Your task to perform on an android device: set the timer Image 0: 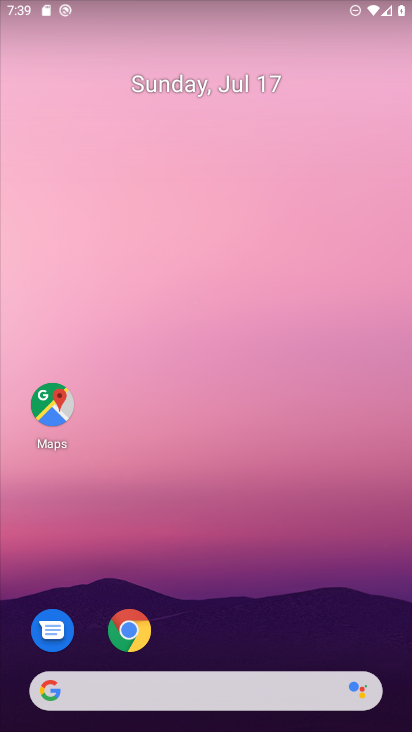
Step 0: drag from (348, 647) to (243, 32)
Your task to perform on an android device: set the timer Image 1: 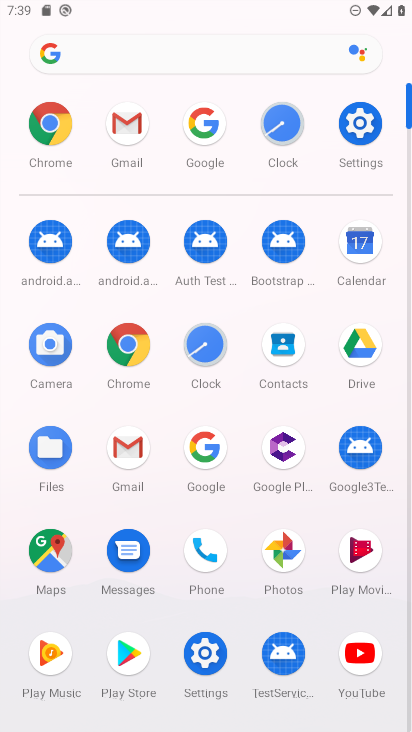
Step 1: click (287, 133)
Your task to perform on an android device: set the timer Image 2: 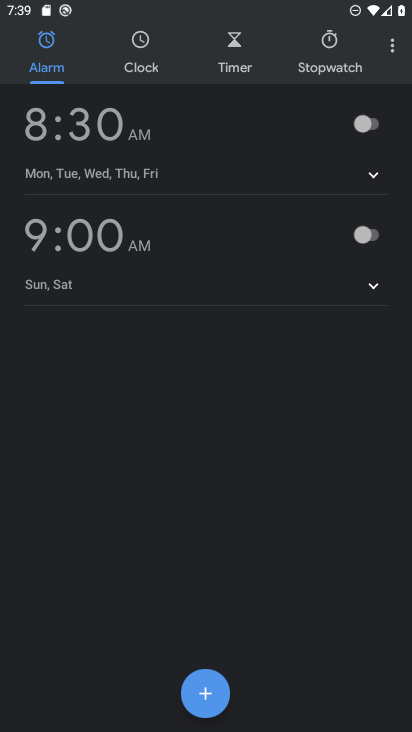
Step 2: click (225, 44)
Your task to perform on an android device: set the timer Image 3: 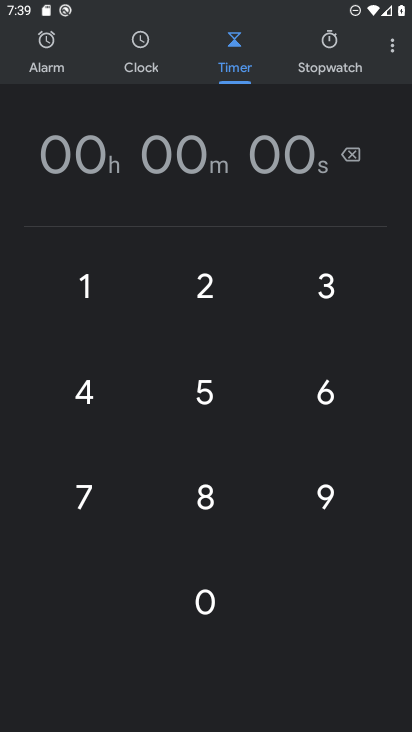
Step 3: click (325, 290)
Your task to perform on an android device: set the timer Image 4: 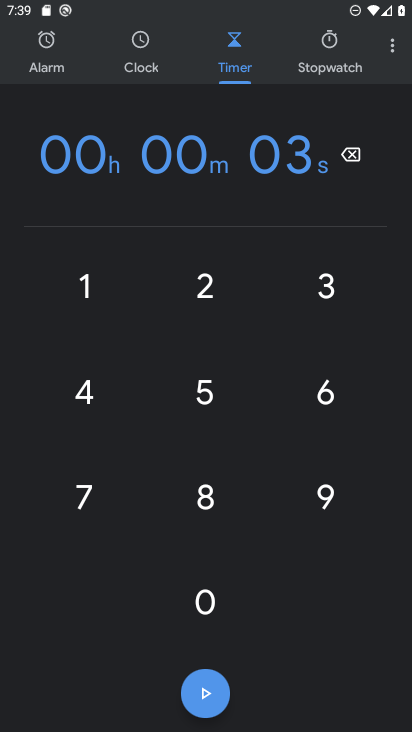
Step 4: click (325, 290)
Your task to perform on an android device: set the timer Image 5: 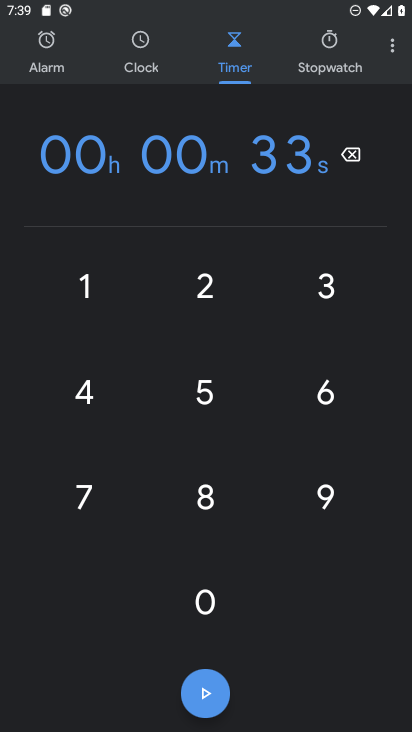
Step 5: click (325, 290)
Your task to perform on an android device: set the timer Image 6: 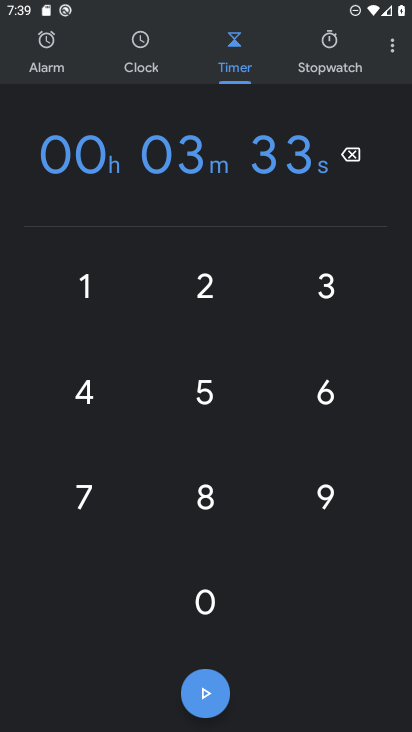
Step 6: click (325, 290)
Your task to perform on an android device: set the timer Image 7: 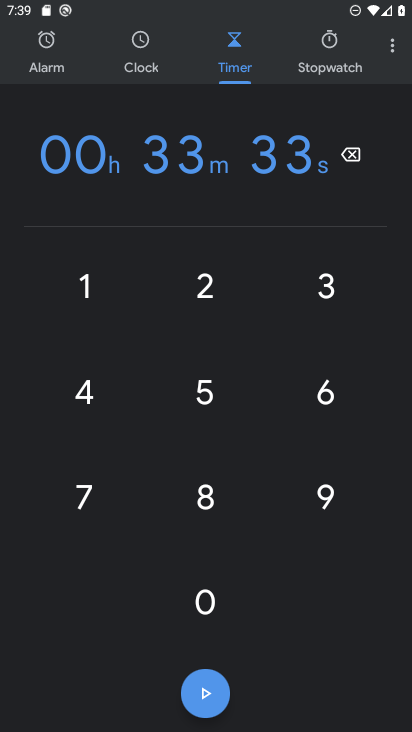
Step 7: click (219, 264)
Your task to perform on an android device: set the timer Image 8: 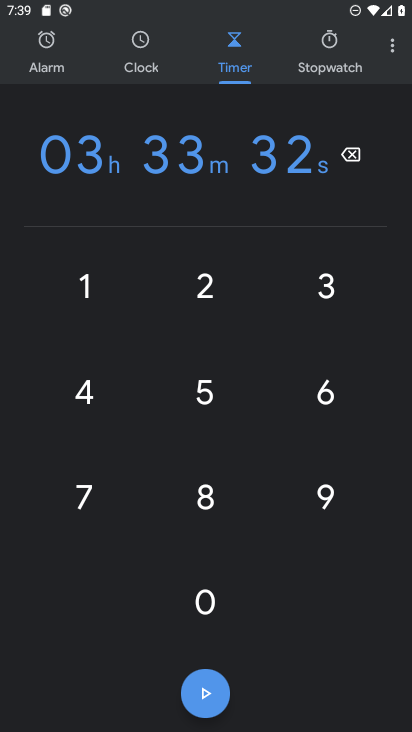
Step 8: task complete